Your task to perform on an android device: Open calendar and show me the second week of next month Image 0: 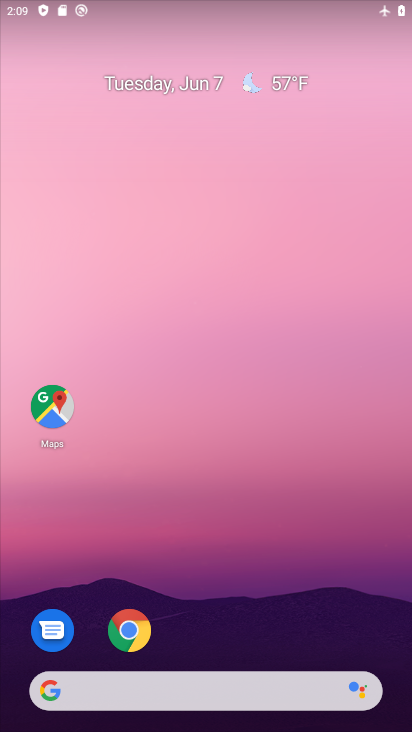
Step 0: drag from (400, 721) to (299, 200)
Your task to perform on an android device: Open calendar and show me the second week of next month Image 1: 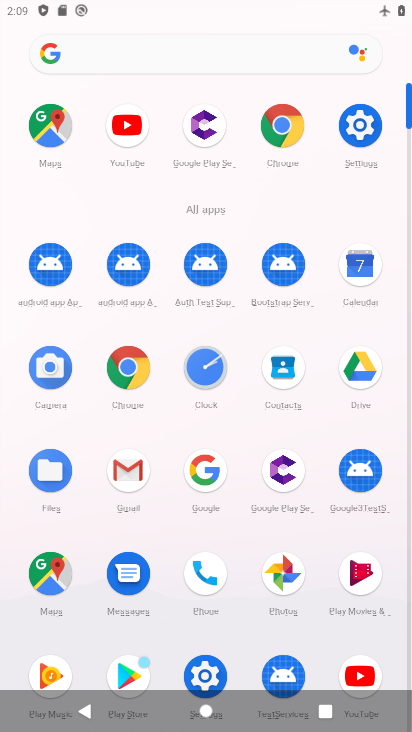
Step 1: click (374, 254)
Your task to perform on an android device: Open calendar and show me the second week of next month Image 2: 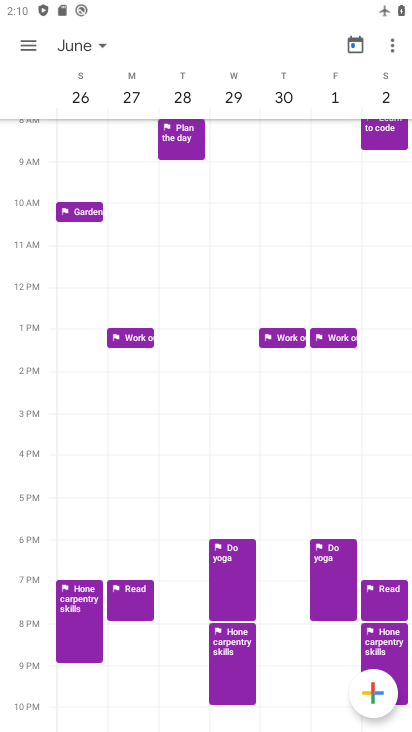
Step 2: click (103, 43)
Your task to perform on an android device: Open calendar and show me the second week of next month Image 3: 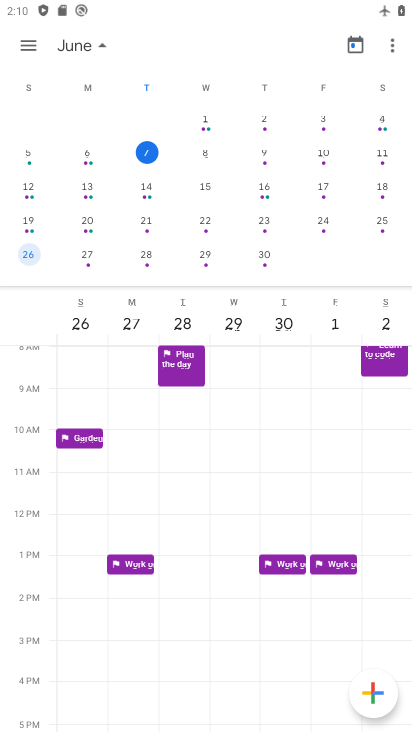
Step 3: drag from (392, 193) to (106, 202)
Your task to perform on an android device: Open calendar and show me the second week of next month Image 4: 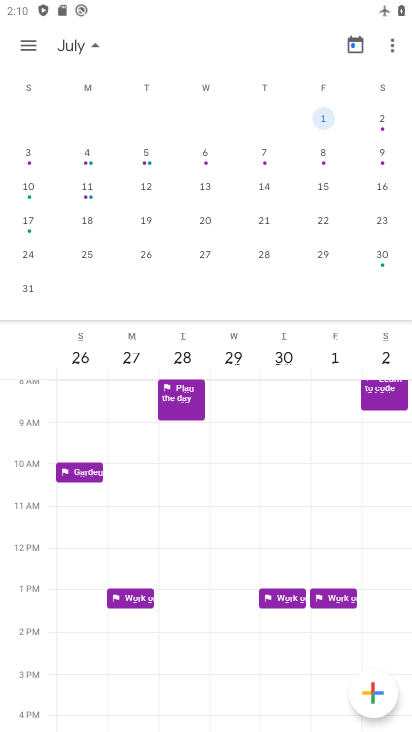
Step 4: click (316, 153)
Your task to perform on an android device: Open calendar and show me the second week of next month Image 5: 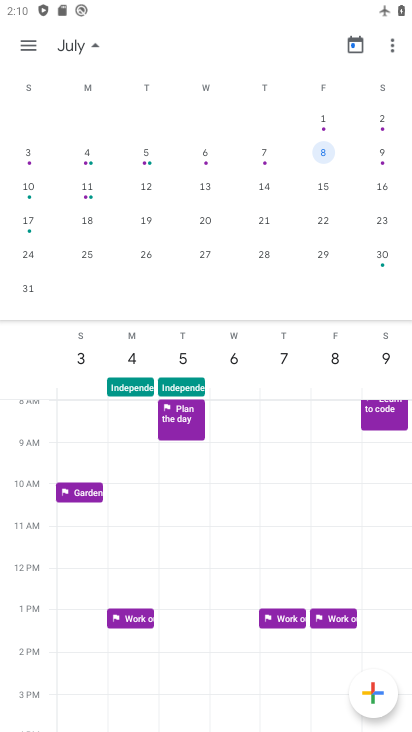
Step 5: task complete